Your task to perform on an android device: check google app version Image 0: 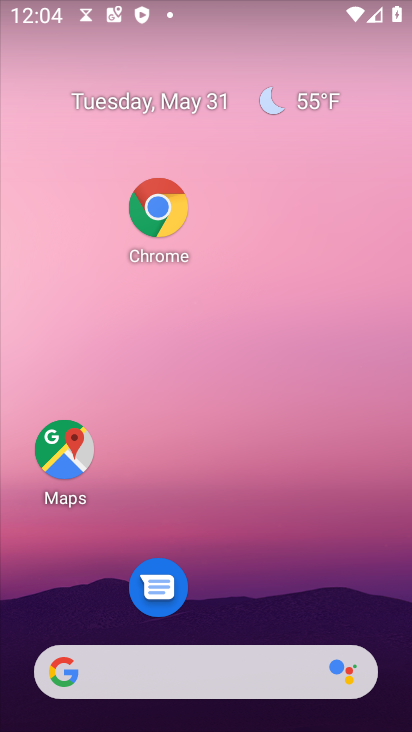
Step 0: drag from (268, 600) to (272, 226)
Your task to perform on an android device: check google app version Image 1: 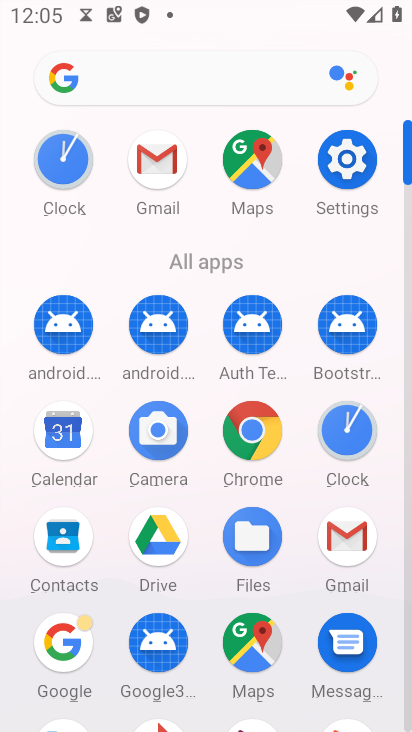
Step 1: click (72, 651)
Your task to perform on an android device: check google app version Image 2: 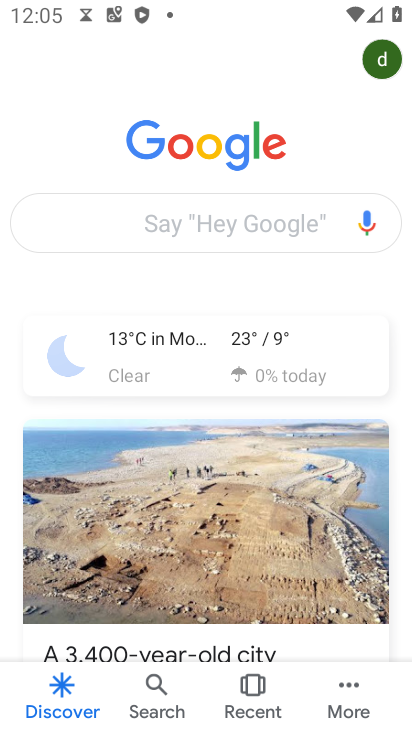
Step 2: click (347, 682)
Your task to perform on an android device: check google app version Image 3: 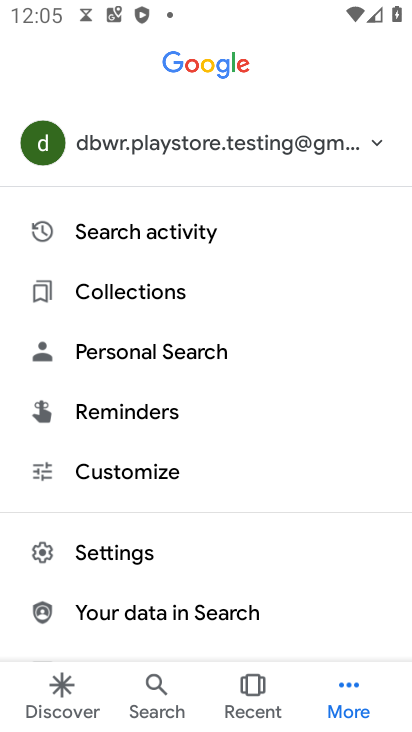
Step 3: click (139, 552)
Your task to perform on an android device: check google app version Image 4: 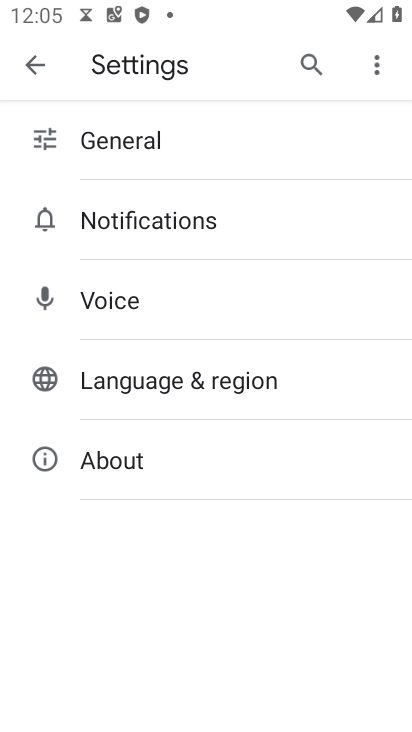
Step 4: click (117, 462)
Your task to perform on an android device: check google app version Image 5: 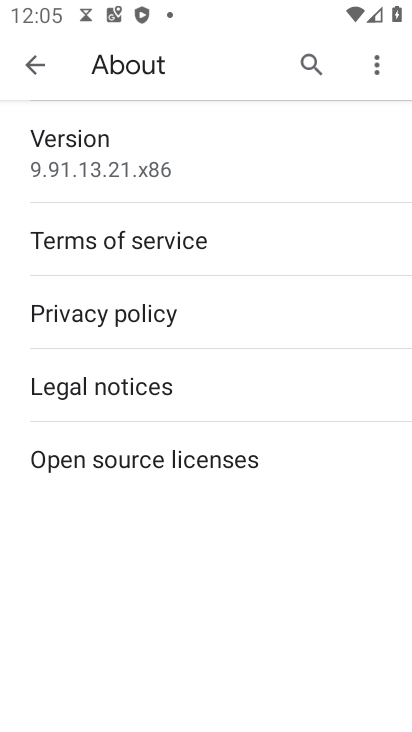
Step 5: task complete